Your task to perform on an android device: check out phone information Image 0: 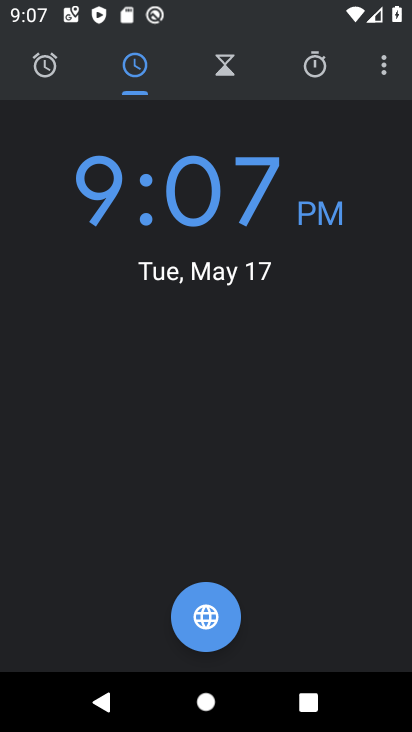
Step 0: press home button
Your task to perform on an android device: check out phone information Image 1: 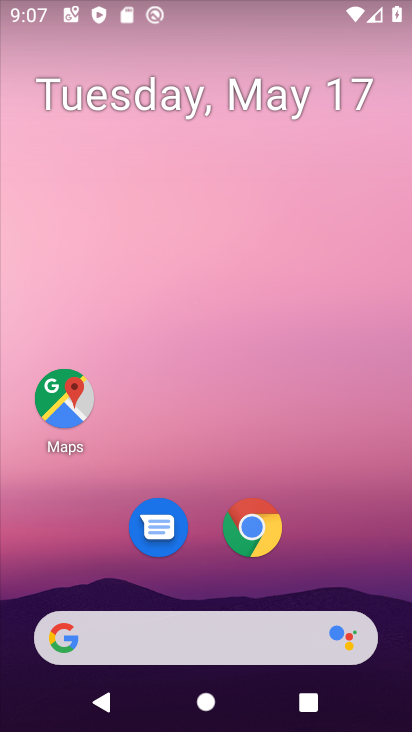
Step 1: drag from (212, 645) to (346, 224)
Your task to perform on an android device: check out phone information Image 2: 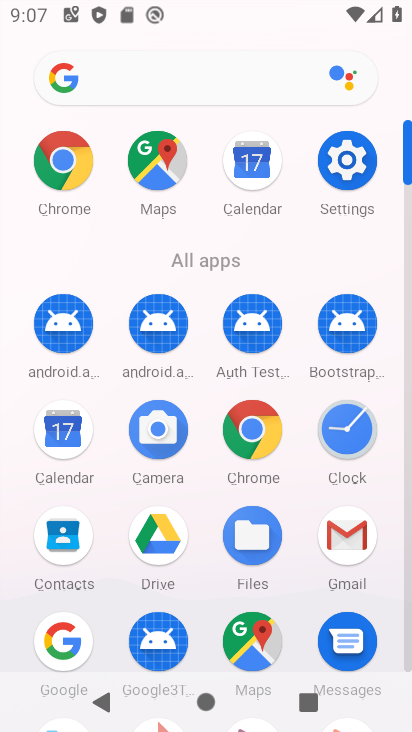
Step 2: click (351, 167)
Your task to perform on an android device: check out phone information Image 3: 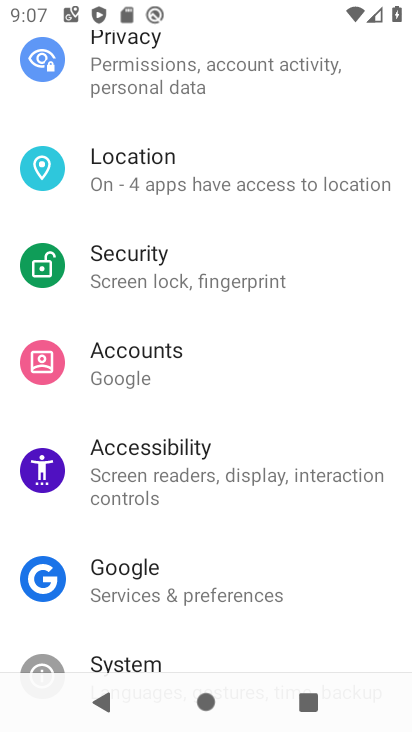
Step 3: drag from (216, 629) to (347, 219)
Your task to perform on an android device: check out phone information Image 4: 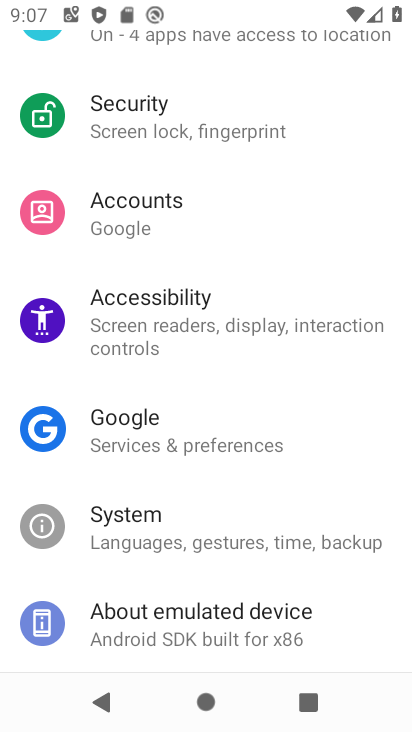
Step 4: drag from (257, 568) to (357, 309)
Your task to perform on an android device: check out phone information Image 5: 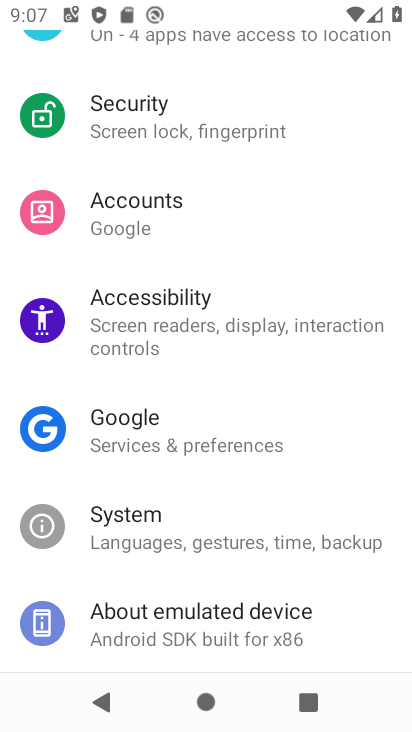
Step 5: click (230, 612)
Your task to perform on an android device: check out phone information Image 6: 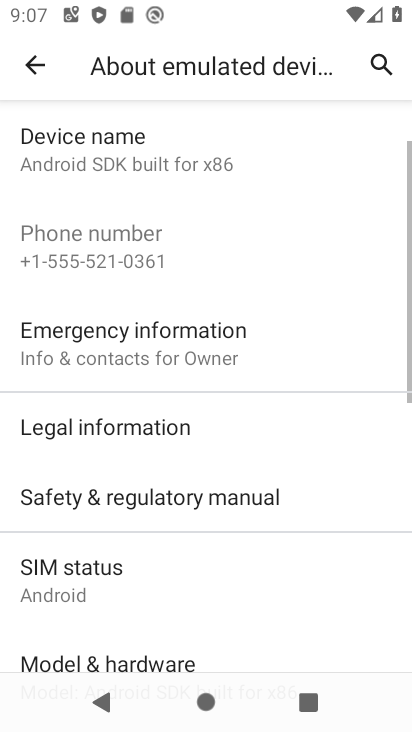
Step 6: task complete